Your task to perform on an android device: delete the emails in spam in the gmail app Image 0: 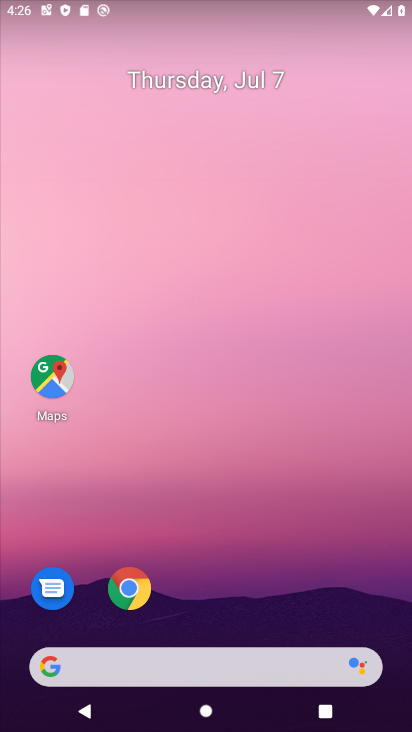
Step 0: drag from (174, 644) to (202, 125)
Your task to perform on an android device: delete the emails in spam in the gmail app Image 1: 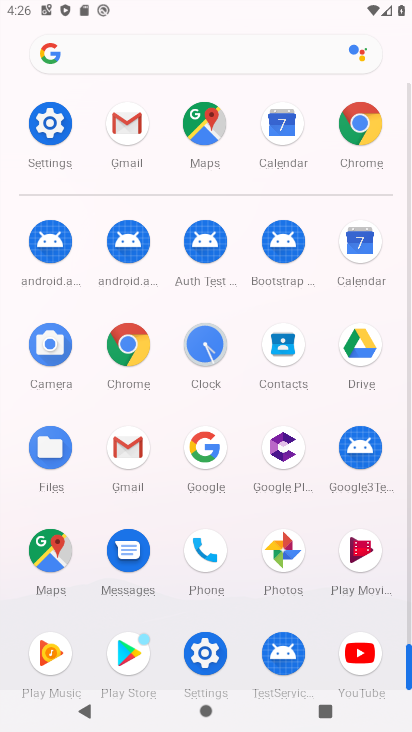
Step 1: click (146, 448)
Your task to perform on an android device: delete the emails in spam in the gmail app Image 2: 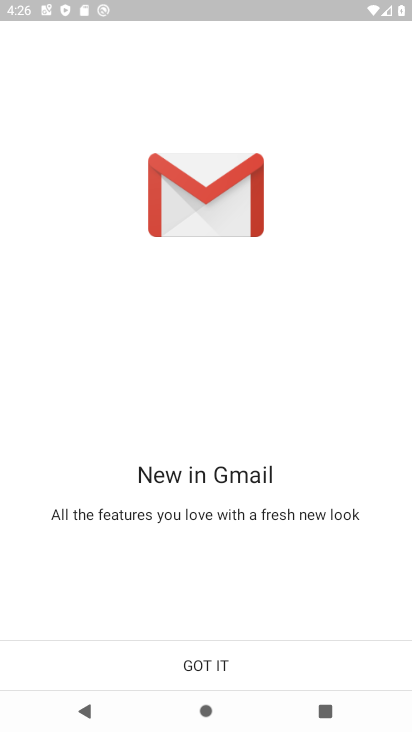
Step 2: click (276, 667)
Your task to perform on an android device: delete the emails in spam in the gmail app Image 3: 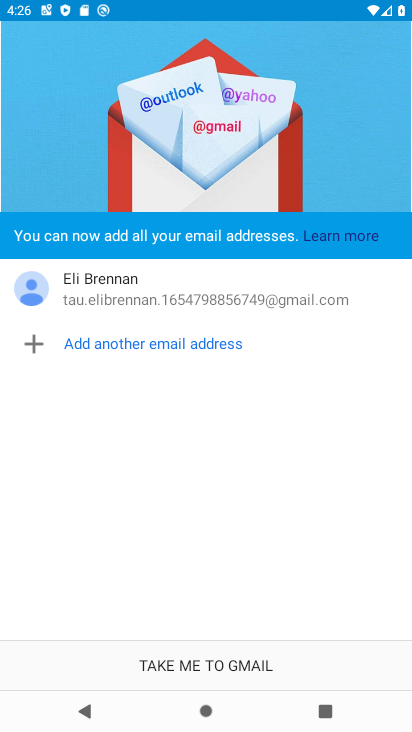
Step 3: click (275, 665)
Your task to perform on an android device: delete the emails in spam in the gmail app Image 4: 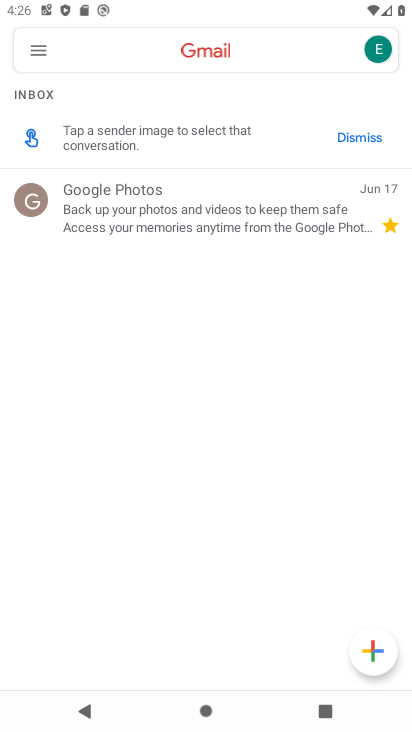
Step 4: click (49, 58)
Your task to perform on an android device: delete the emails in spam in the gmail app Image 5: 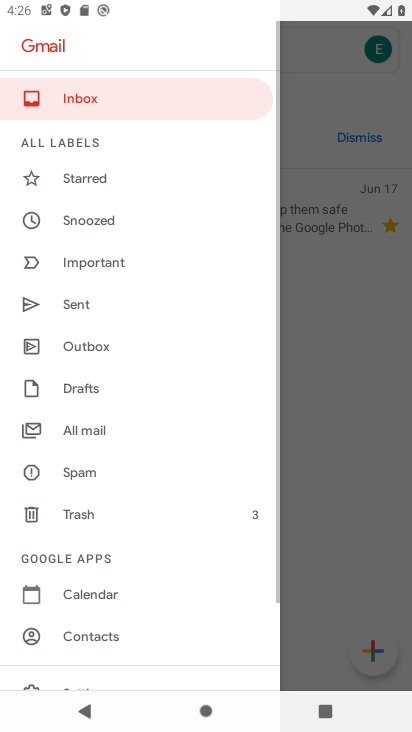
Step 5: click (92, 469)
Your task to perform on an android device: delete the emails in spam in the gmail app Image 6: 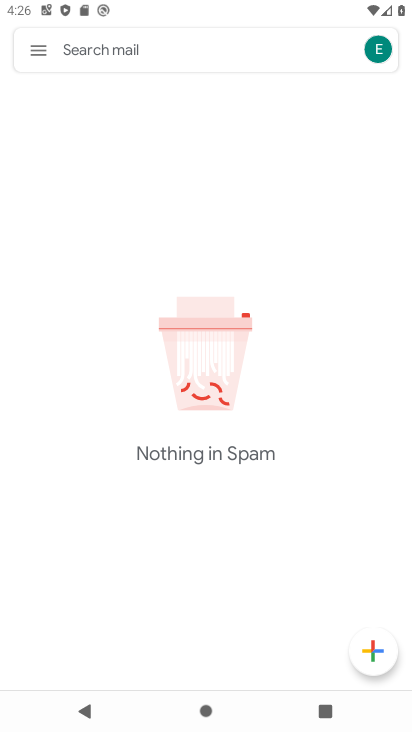
Step 6: task complete